Your task to perform on an android device: Search for hotels in Tokyo Image 0: 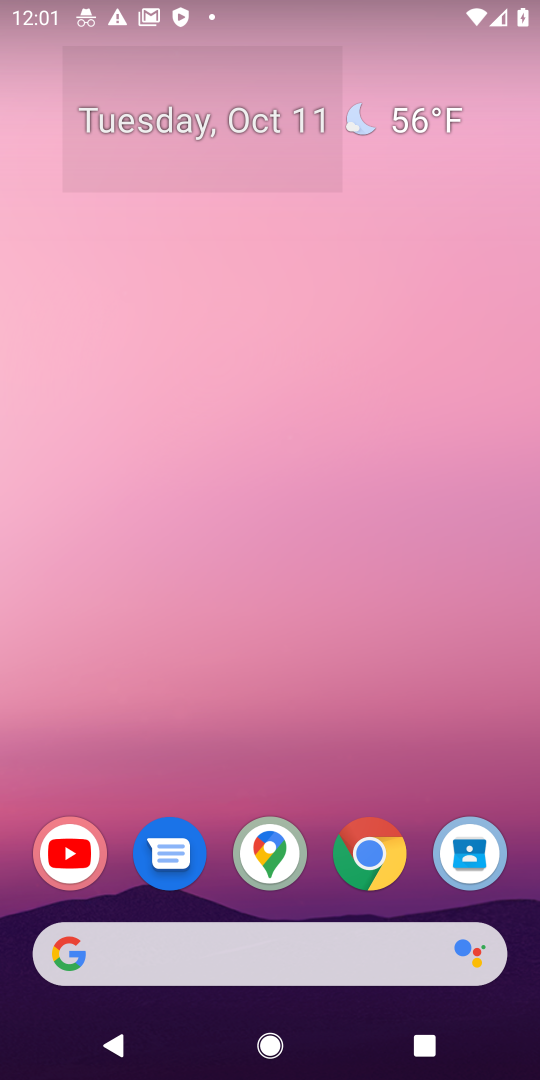
Step 0: press home button
Your task to perform on an android device: Search for hotels in Tokyo Image 1: 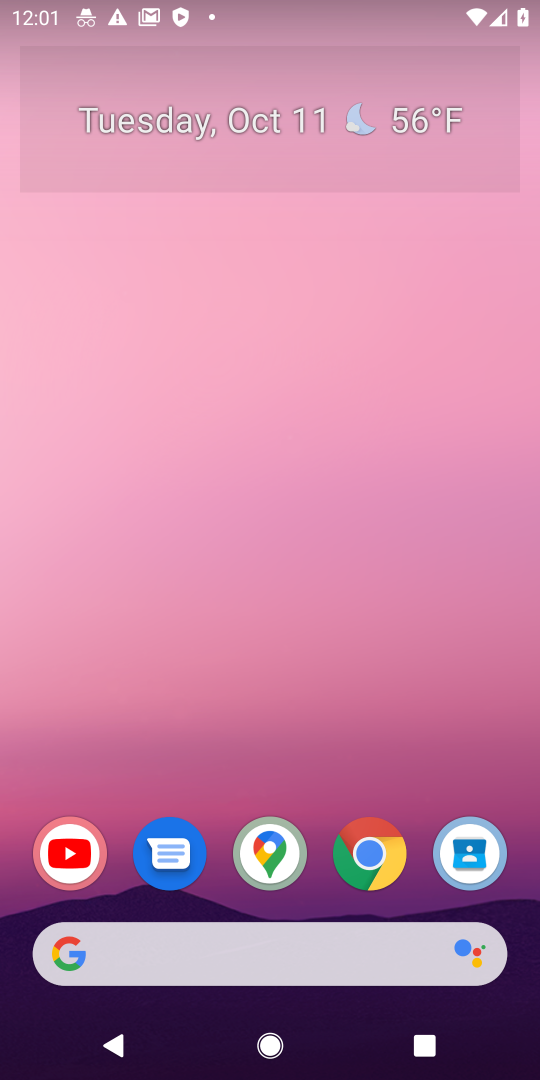
Step 1: click (300, 960)
Your task to perform on an android device: Search for hotels in Tokyo Image 2: 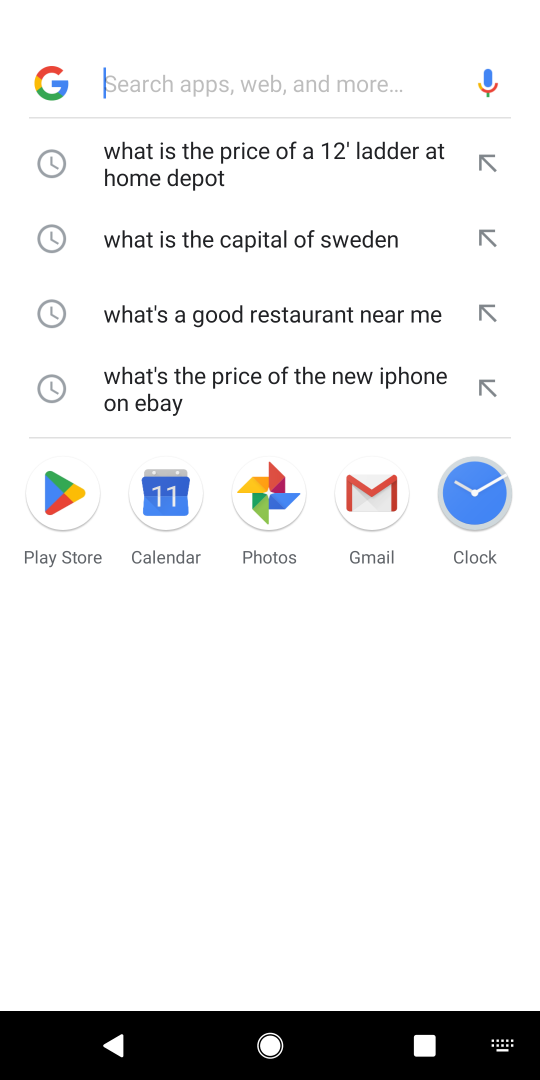
Step 2: type "Search for hotels in Tokyo"
Your task to perform on an android device: Search for hotels in Tokyo Image 3: 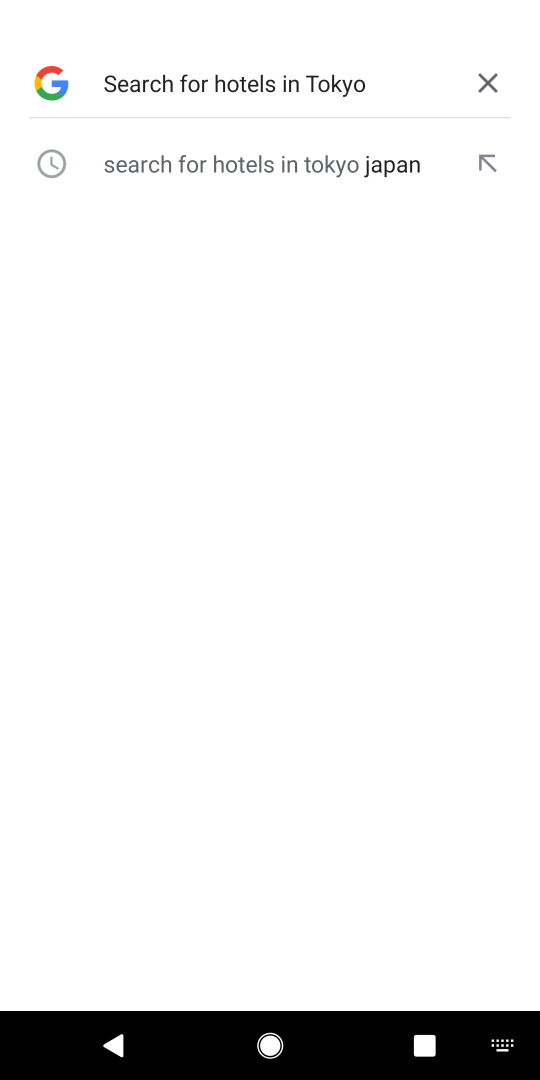
Step 3: press enter
Your task to perform on an android device: Search for hotels in Tokyo Image 4: 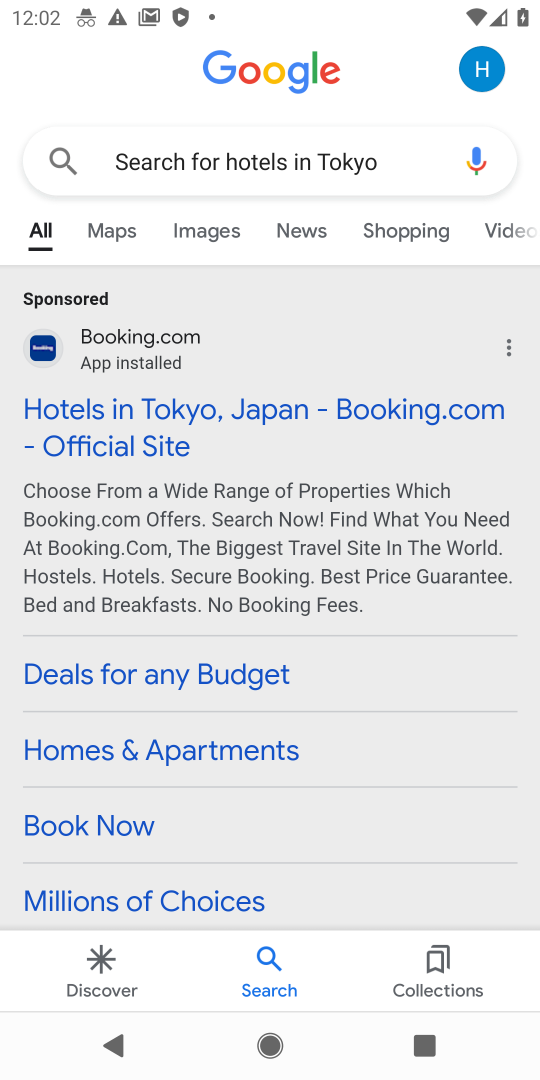
Step 4: task complete